Your task to perform on an android device: set the timer Image 0: 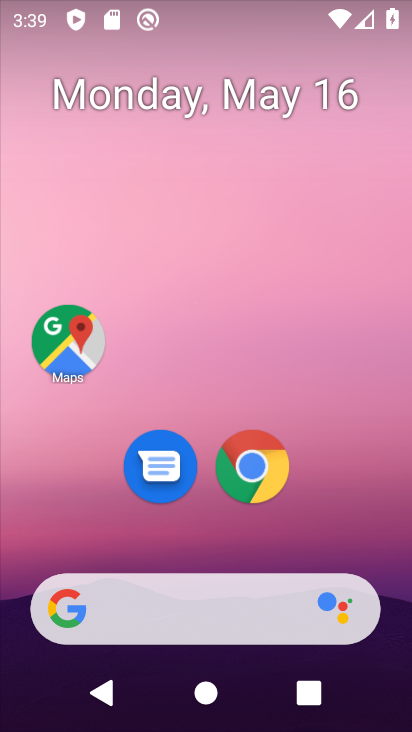
Step 0: drag from (295, 662) to (214, 276)
Your task to perform on an android device: set the timer Image 1: 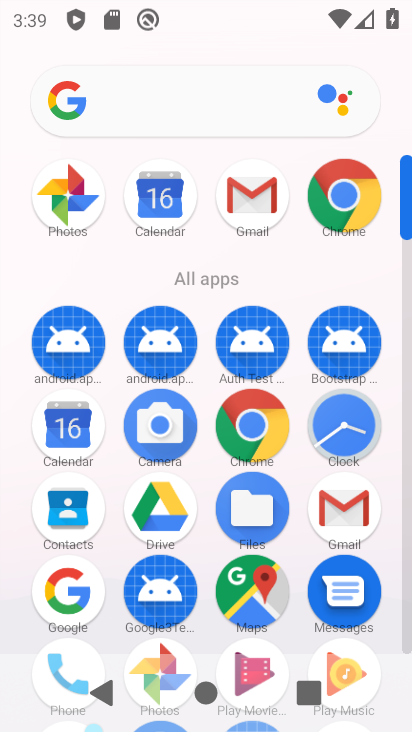
Step 1: click (341, 435)
Your task to perform on an android device: set the timer Image 2: 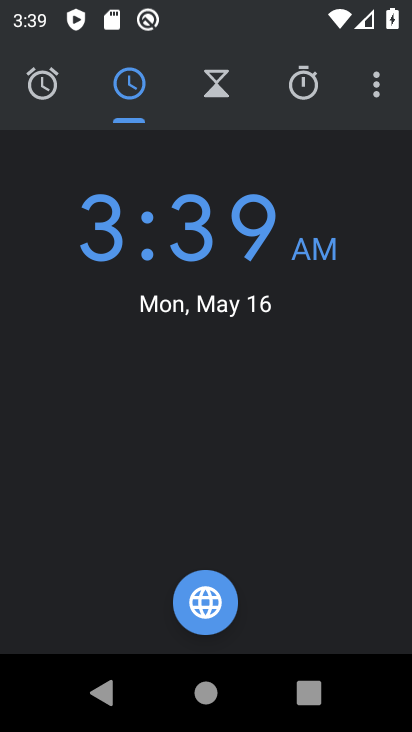
Step 2: click (208, 100)
Your task to perform on an android device: set the timer Image 3: 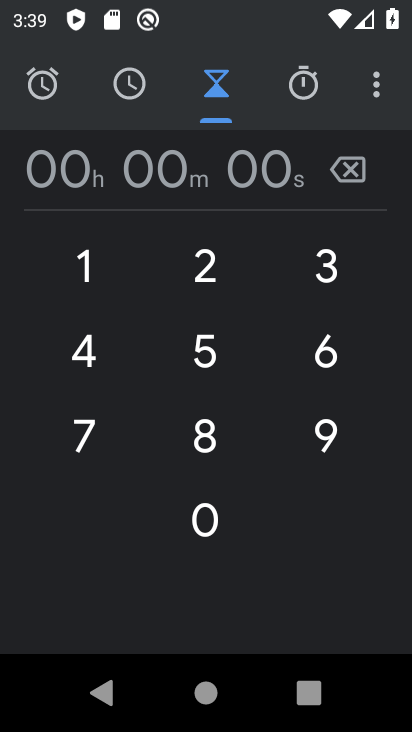
Step 3: click (173, 379)
Your task to perform on an android device: set the timer Image 4: 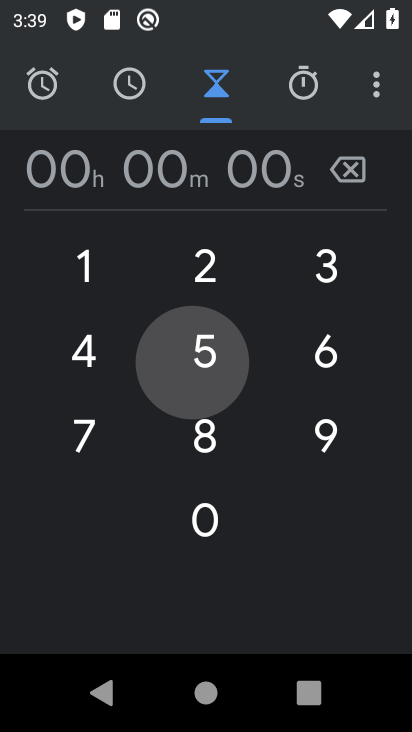
Step 4: click (73, 350)
Your task to perform on an android device: set the timer Image 5: 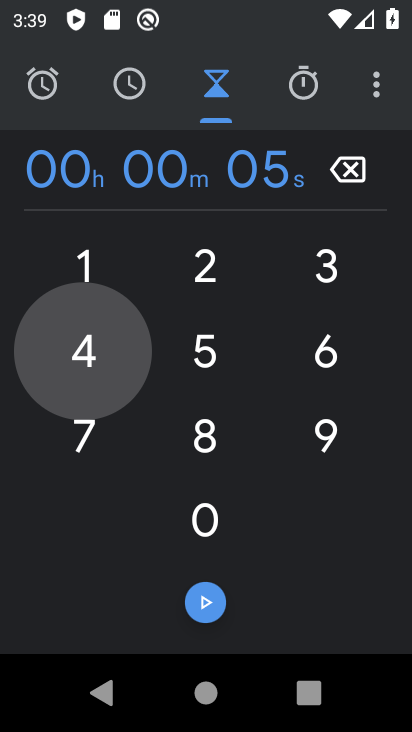
Step 5: click (63, 426)
Your task to perform on an android device: set the timer Image 6: 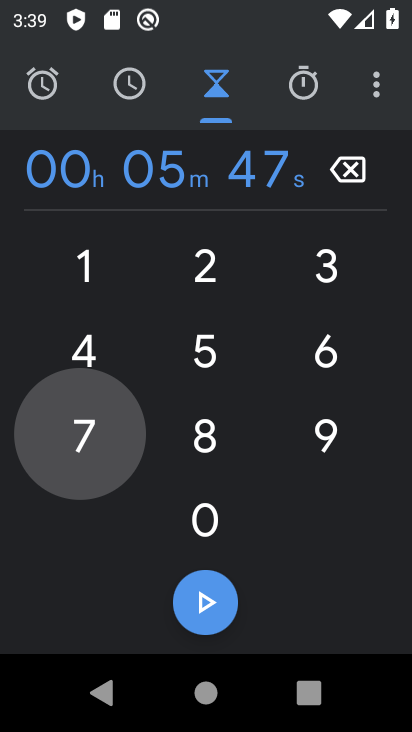
Step 6: click (143, 410)
Your task to perform on an android device: set the timer Image 7: 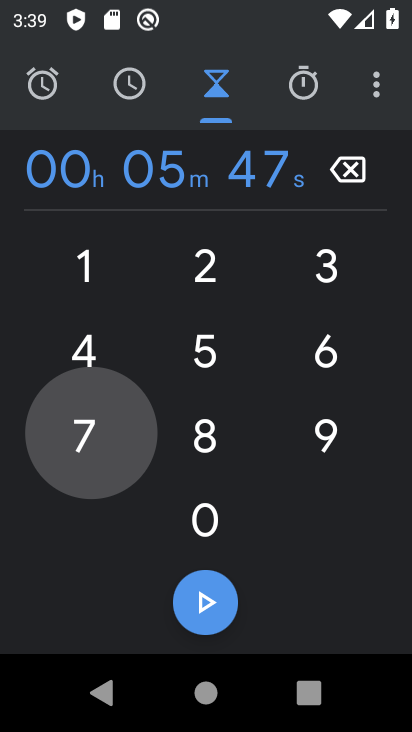
Step 7: click (161, 344)
Your task to perform on an android device: set the timer Image 8: 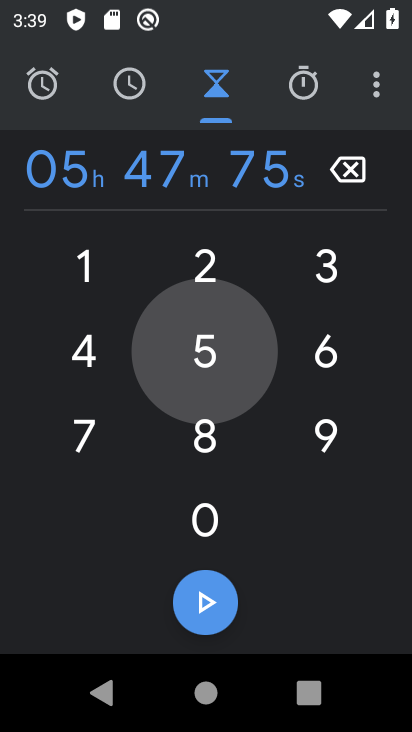
Step 8: click (201, 291)
Your task to perform on an android device: set the timer Image 9: 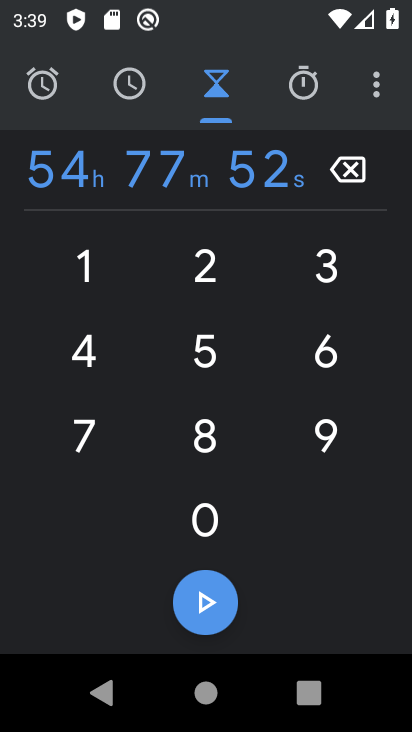
Step 9: task complete